Your task to perform on an android device: open sync settings in chrome Image 0: 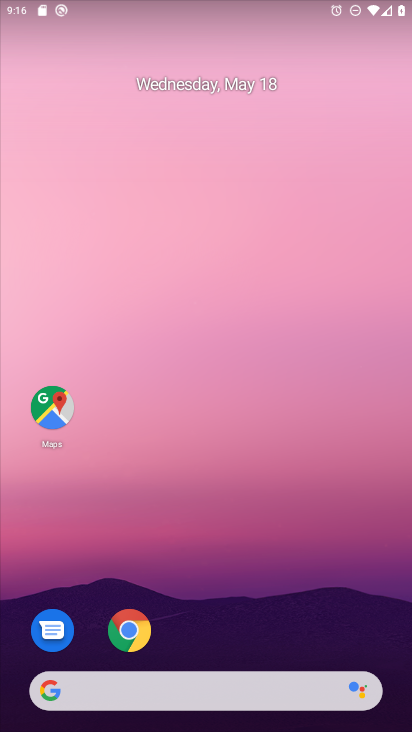
Step 0: click (134, 631)
Your task to perform on an android device: open sync settings in chrome Image 1: 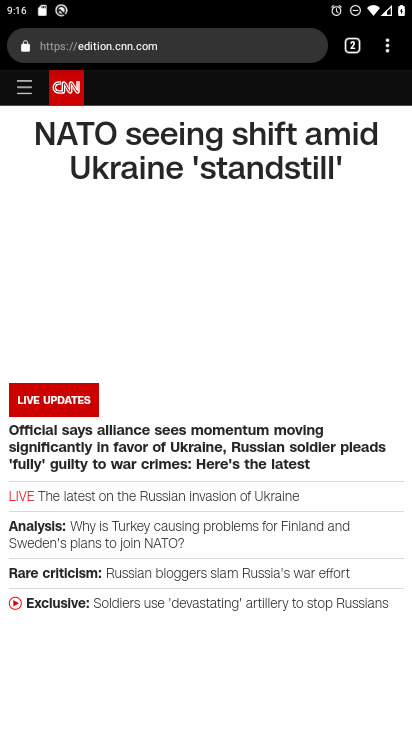
Step 1: click (388, 49)
Your task to perform on an android device: open sync settings in chrome Image 2: 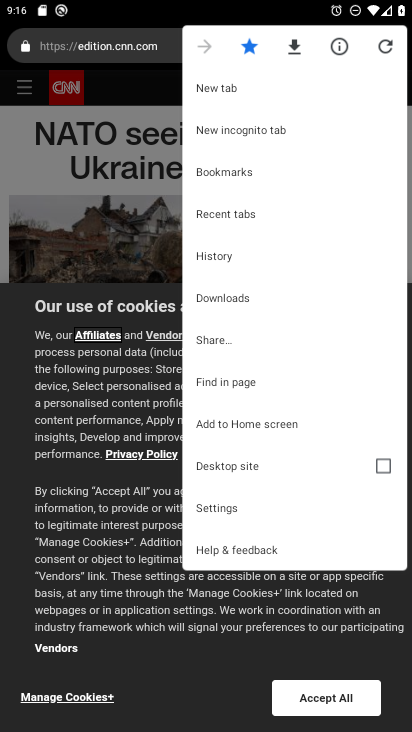
Step 2: click (223, 507)
Your task to perform on an android device: open sync settings in chrome Image 3: 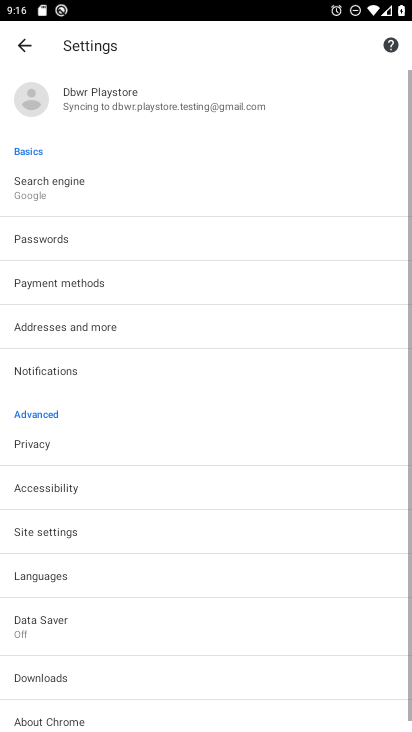
Step 3: click (82, 102)
Your task to perform on an android device: open sync settings in chrome Image 4: 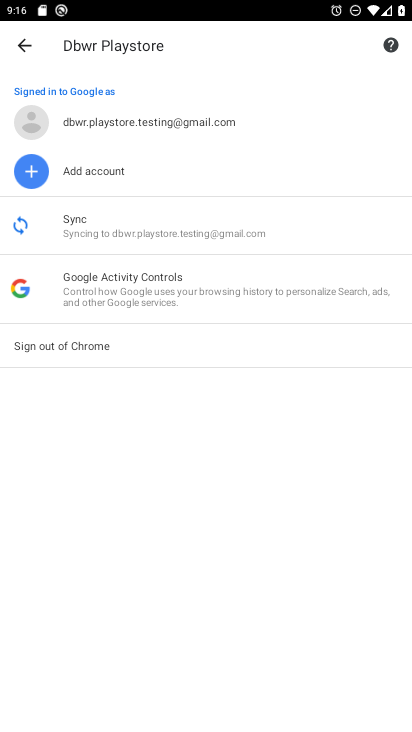
Step 4: click (106, 225)
Your task to perform on an android device: open sync settings in chrome Image 5: 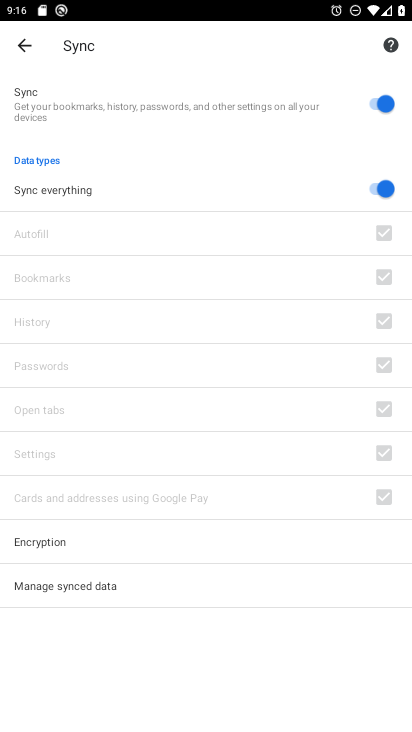
Step 5: task complete